Your task to perform on an android device: toggle airplane mode Image 0: 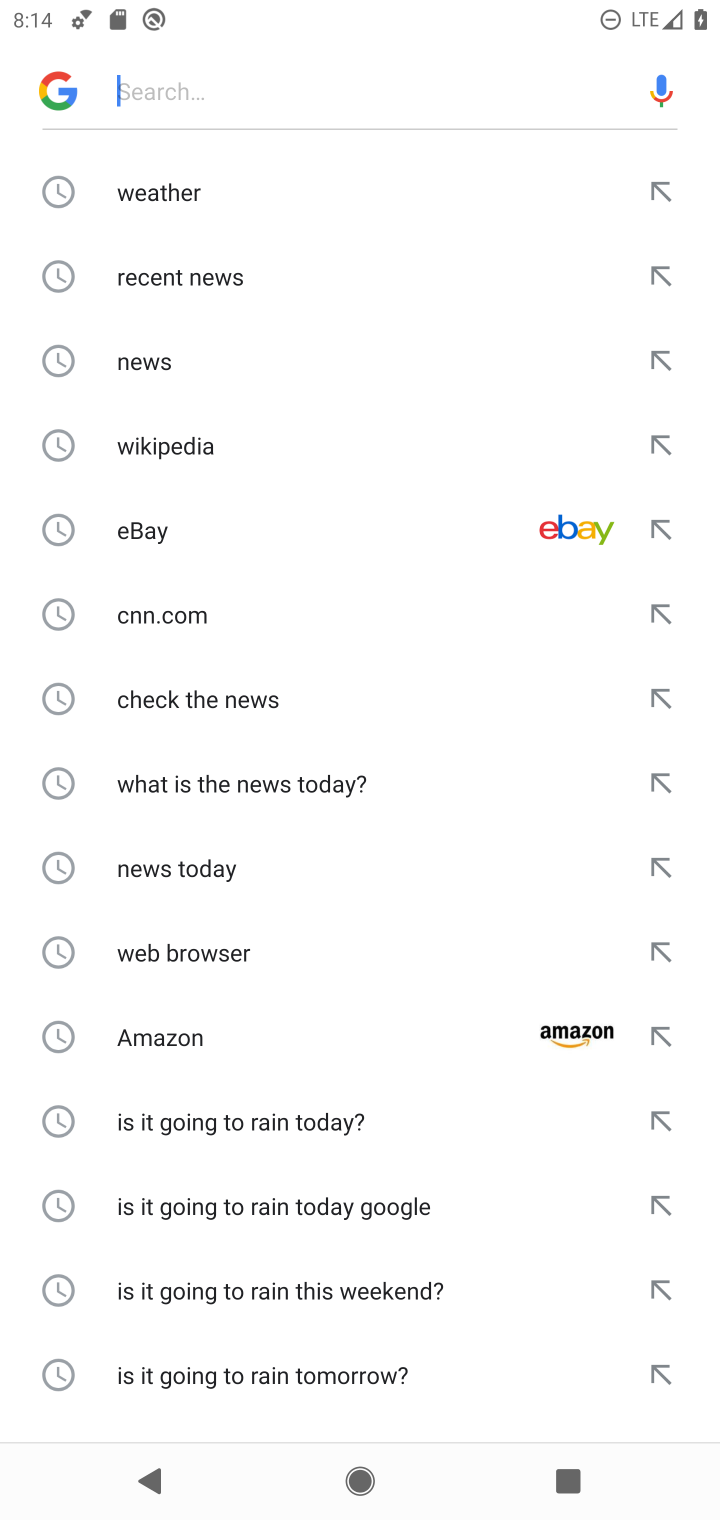
Step 0: press home button
Your task to perform on an android device: toggle airplane mode Image 1: 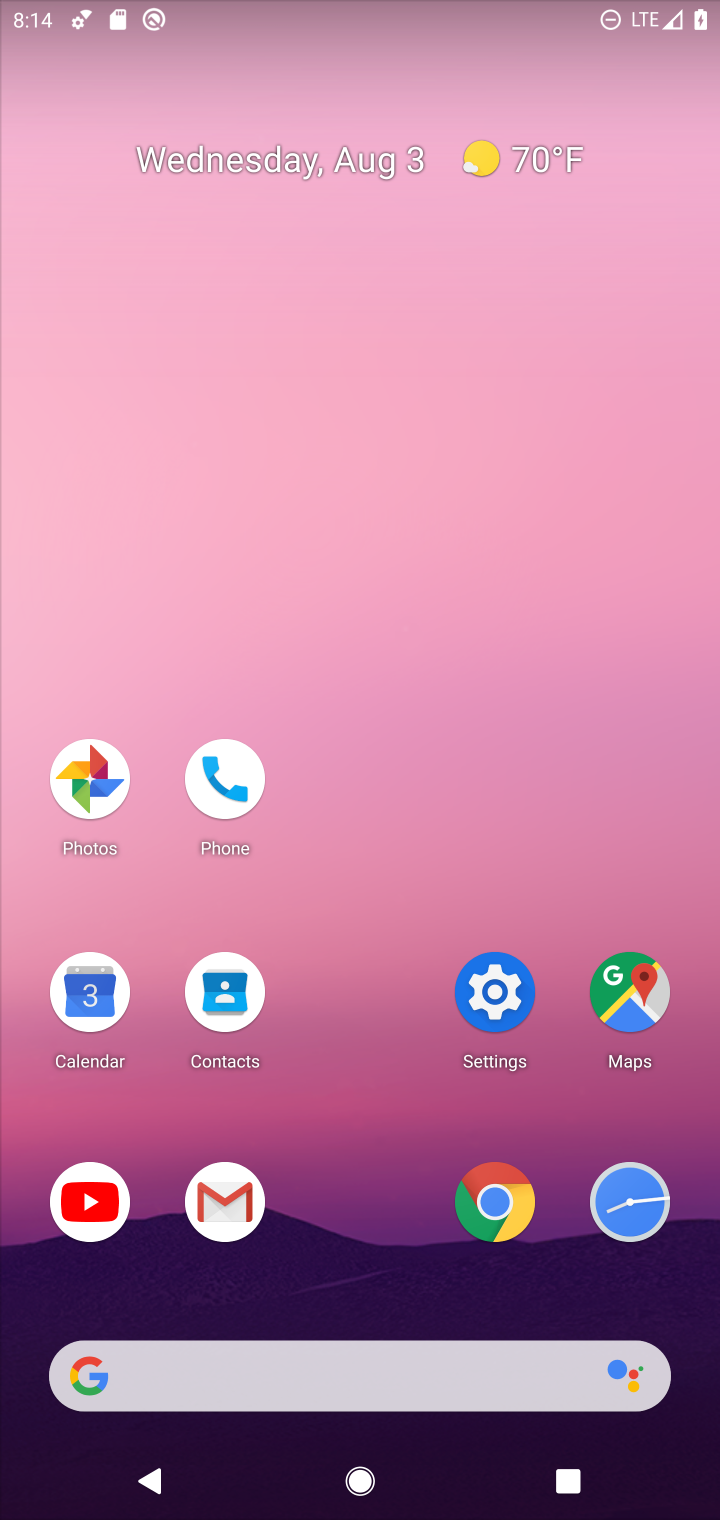
Step 1: click (77, 996)
Your task to perform on an android device: toggle airplane mode Image 2: 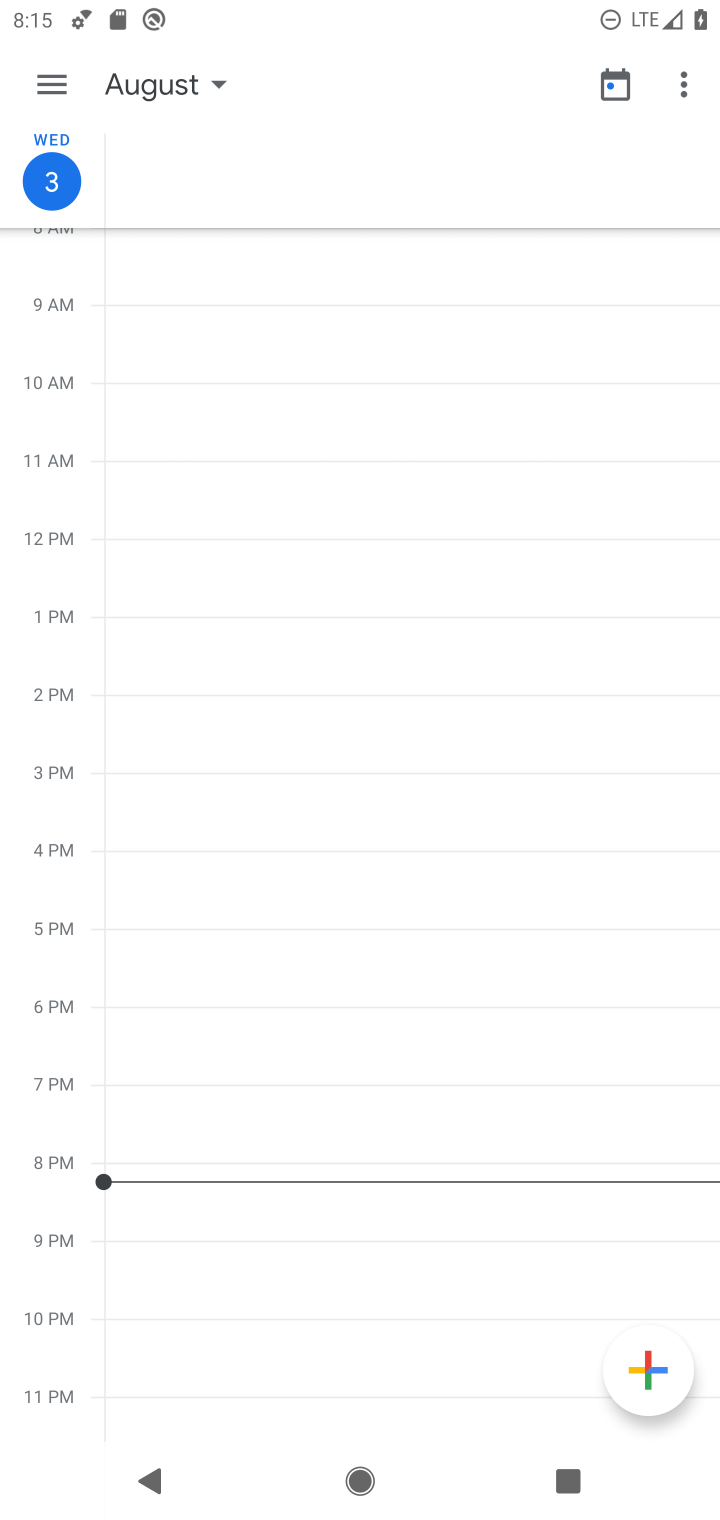
Step 2: press home button
Your task to perform on an android device: toggle airplane mode Image 3: 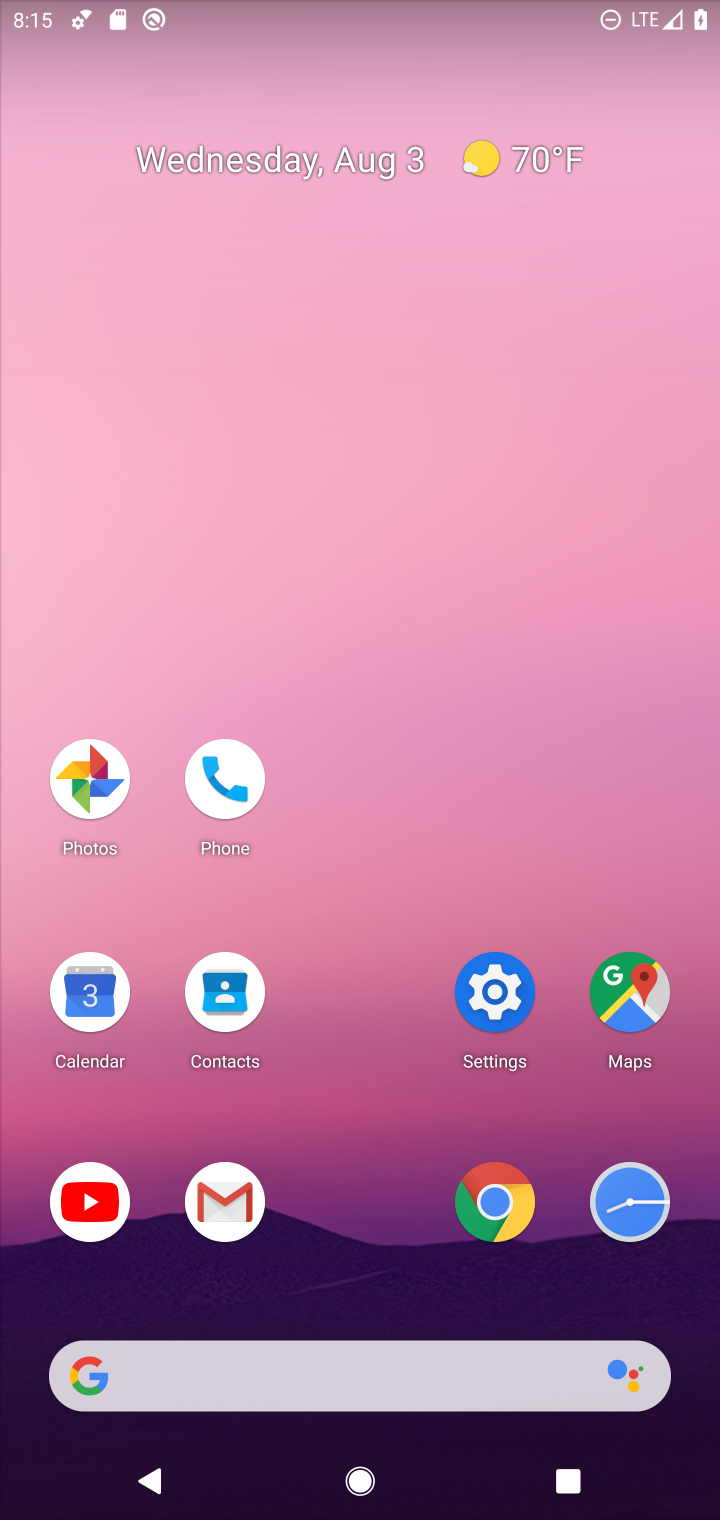
Step 3: click (498, 992)
Your task to perform on an android device: toggle airplane mode Image 4: 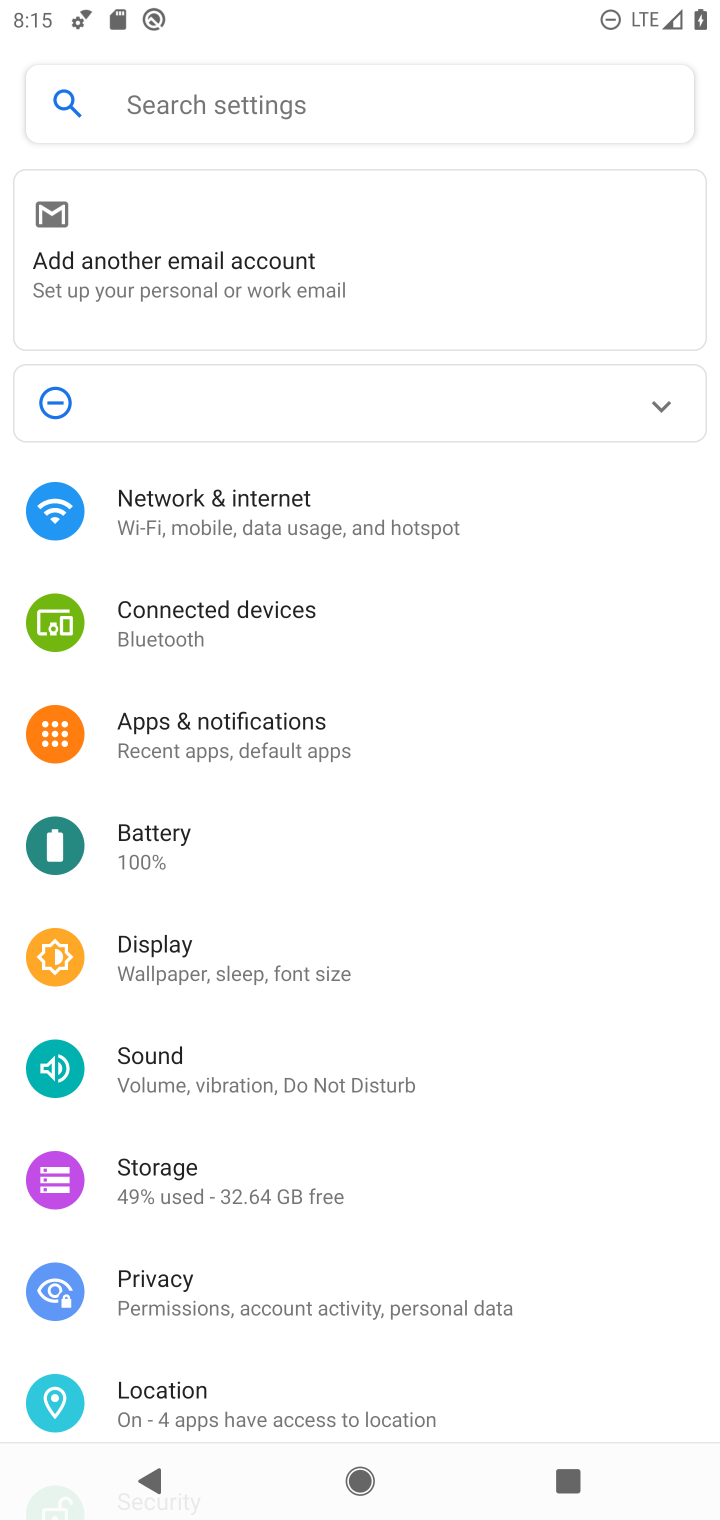
Step 4: click (224, 486)
Your task to perform on an android device: toggle airplane mode Image 5: 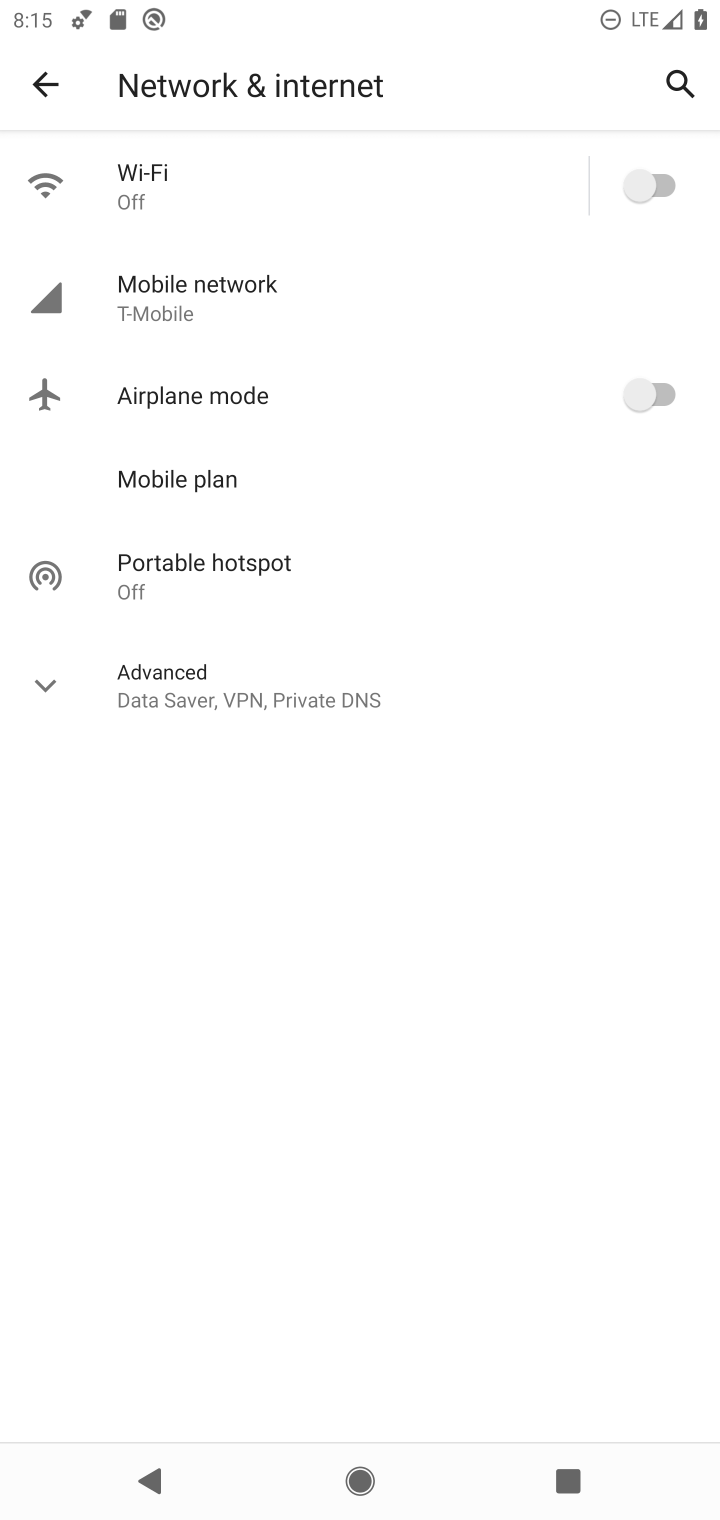
Step 5: click (640, 387)
Your task to perform on an android device: toggle airplane mode Image 6: 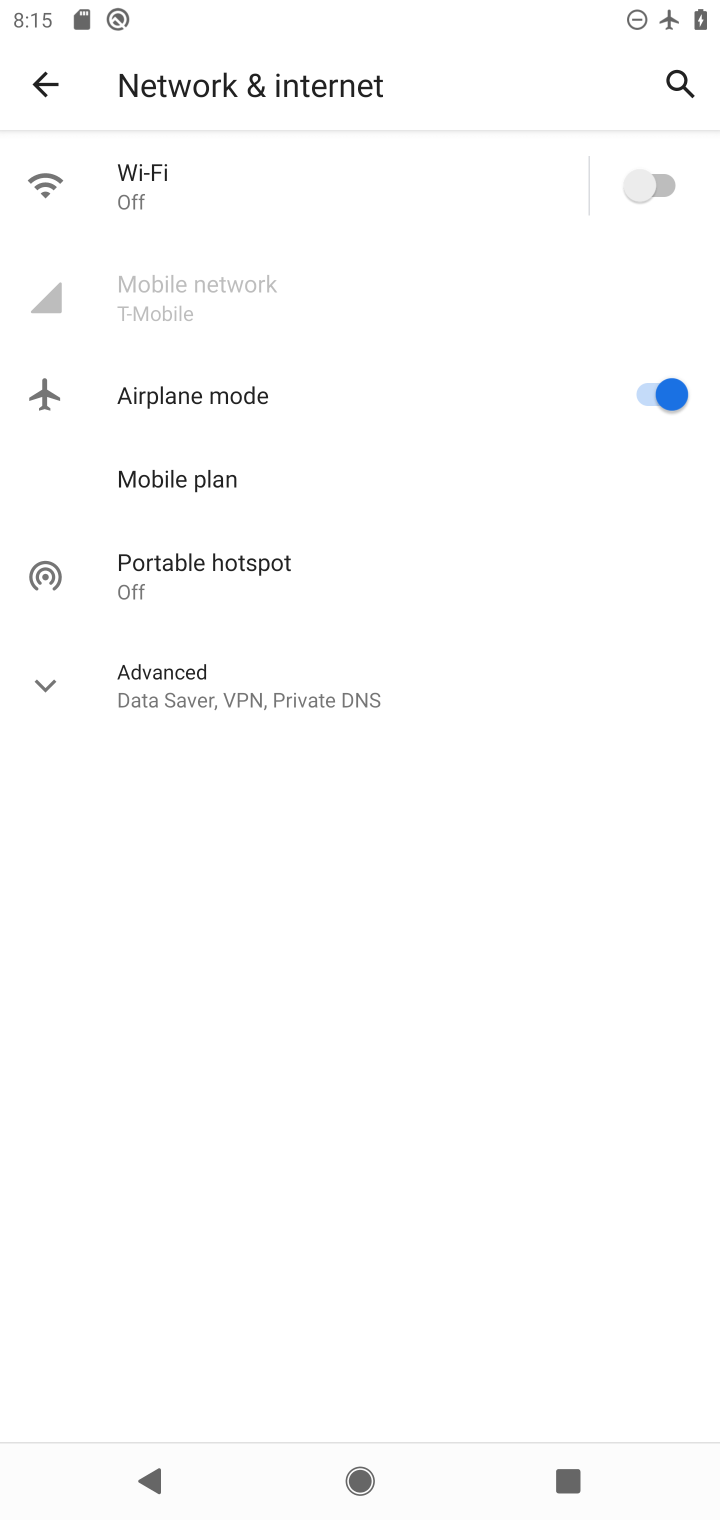
Step 6: task complete